Your task to perform on an android device: remove spam from my inbox in the gmail app Image 0: 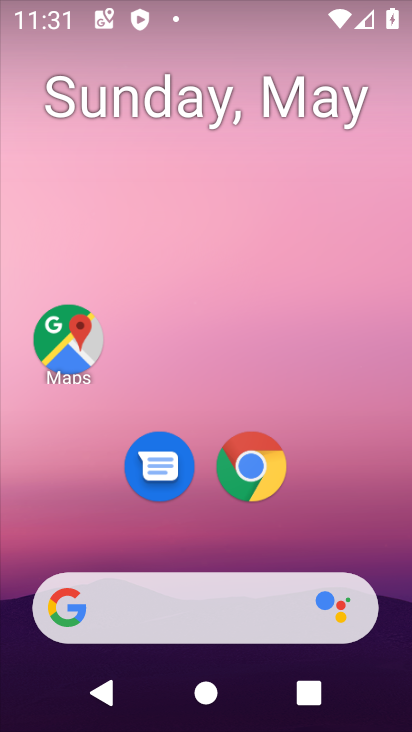
Step 0: drag from (385, 626) to (301, 57)
Your task to perform on an android device: remove spam from my inbox in the gmail app Image 1: 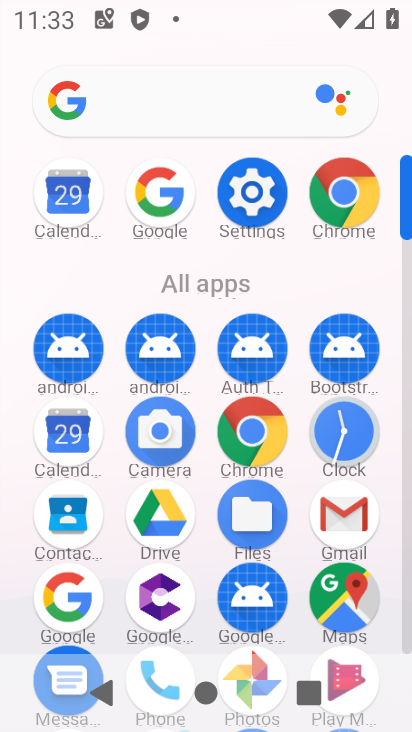
Step 1: click (323, 523)
Your task to perform on an android device: remove spam from my inbox in the gmail app Image 2: 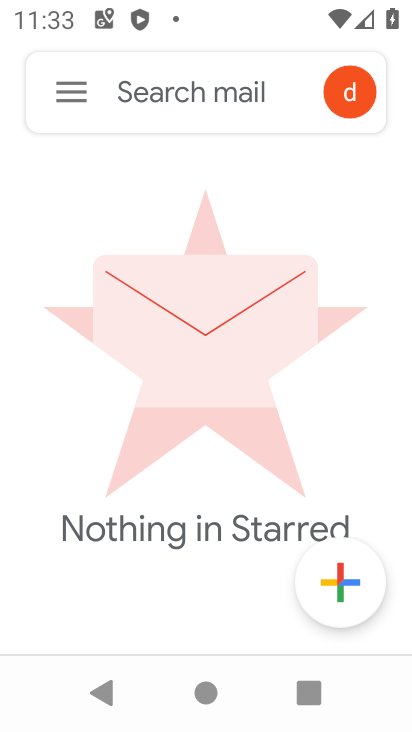
Step 2: click (57, 83)
Your task to perform on an android device: remove spam from my inbox in the gmail app Image 3: 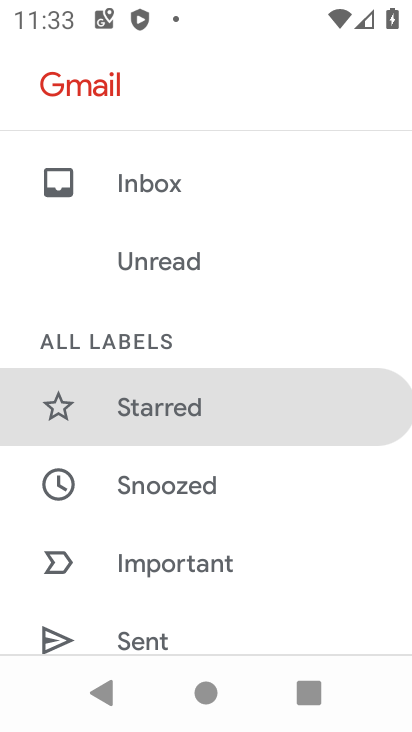
Step 3: drag from (180, 579) to (255, 70)
Your task to perform on an android device: remove spam from my inbox in the gmail app Image 4: 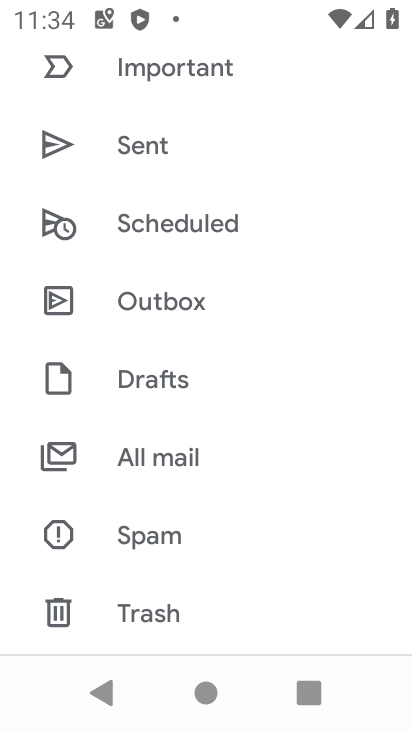
Step 4: click (229, 539)
Your task to perform on an android device: remove spam from my inbox in the gmail app Image 5: 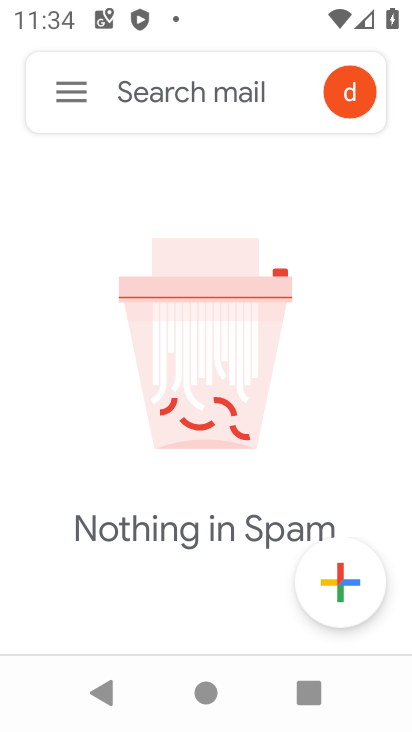
Step 5: task complete